Your task to perform on an android device: When is my next meeting? Image 0: 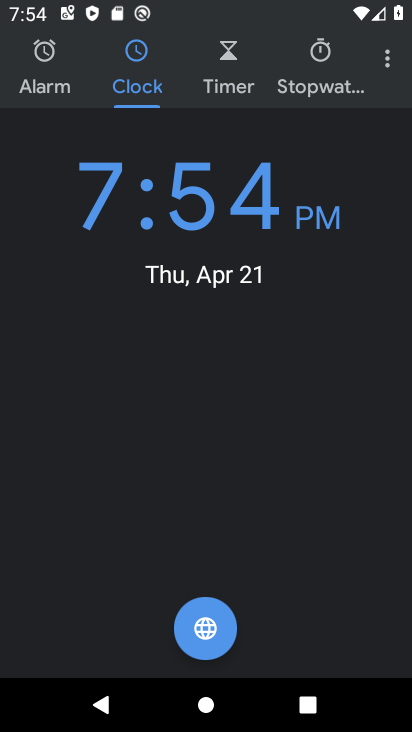
Step 0: press home button
Your task to perform on an android device: When is my next meeting? Image 1: 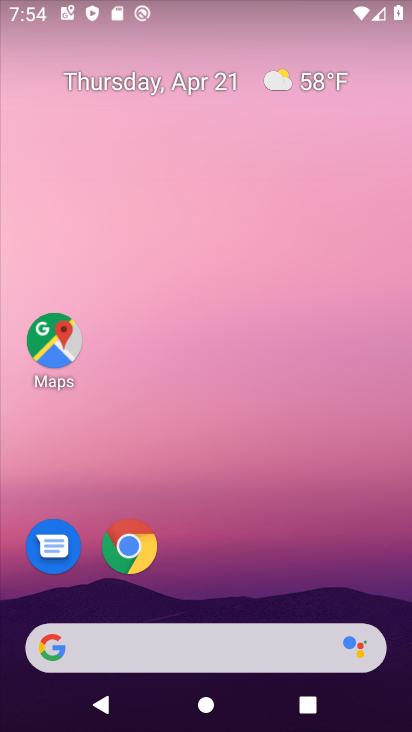
Step 1: drag from (240, 505) to (204, 34)
Your task to perform on an android device: When is my next meeting? Image 2: 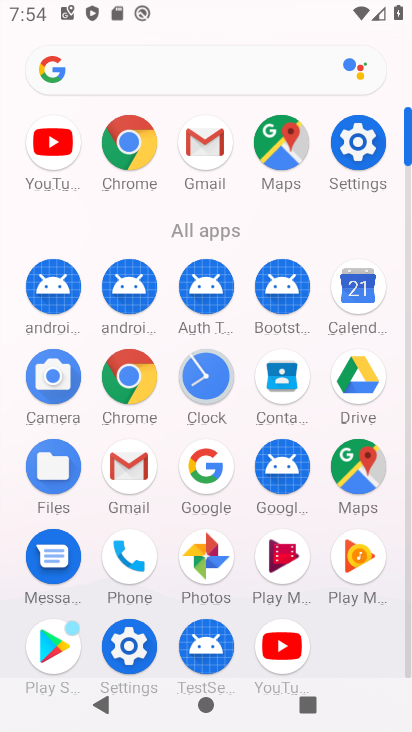
Step 2: click (357, 289)
Your task to perform on an android device: When is my next meeting? Image 3: 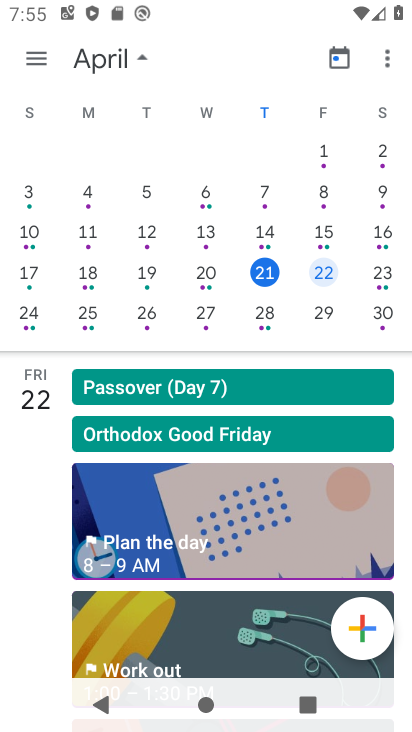
Step 3: task complete